Your task to perform on an android device: Open the Play Movies app and select the watchlist tab. Image 0: 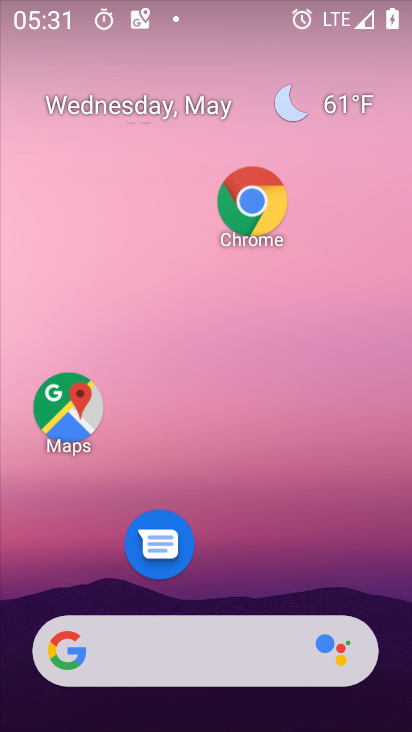
Step 0: drag from (222, 616) to (227, 274)
Your task to perform on an android device: Open the Play Movies app and select the watchlist tab. Image 1: 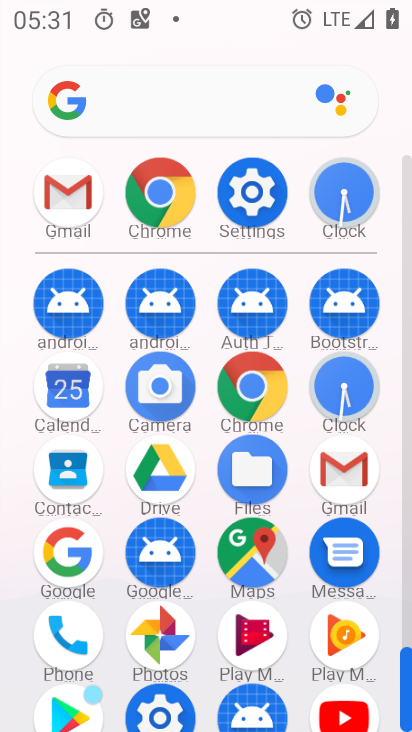
Step 1: click (234, 634)
Your task to perform on an android device: Open the Play Movies app and select the watchlist tab. Image 2: 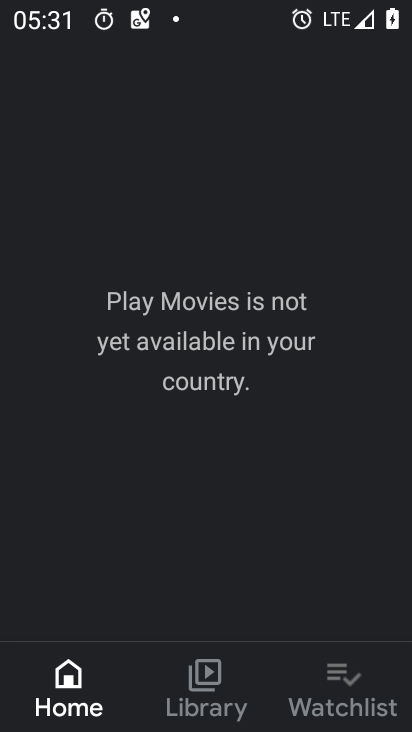
Step 2: click (357, 685)
Your task to perform on an android device: Open the Play Movies app and select the watchlist tab. Image 3: 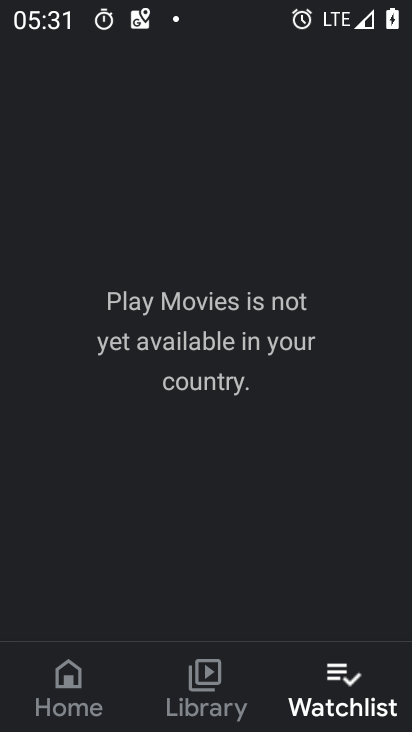
Step 3: task complete